Your task to perform on an android device: Open the phone app and click the voicemail tab. Image 0: 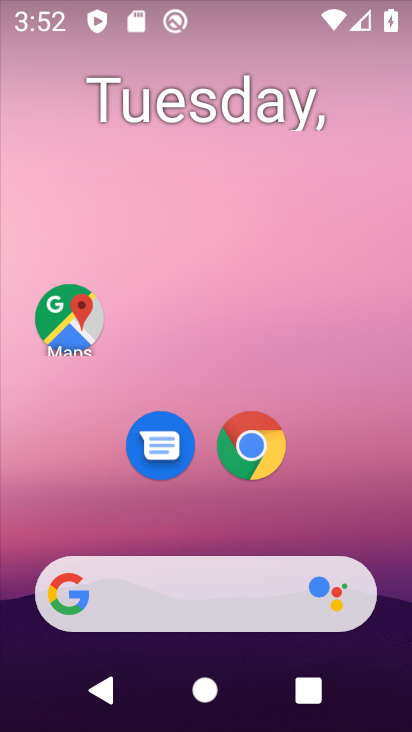
Step 0: drag from (222, 600) to (353, 57)
Your task to perform on an android device: Open the phone app and click the voicemail tab. Image 1: 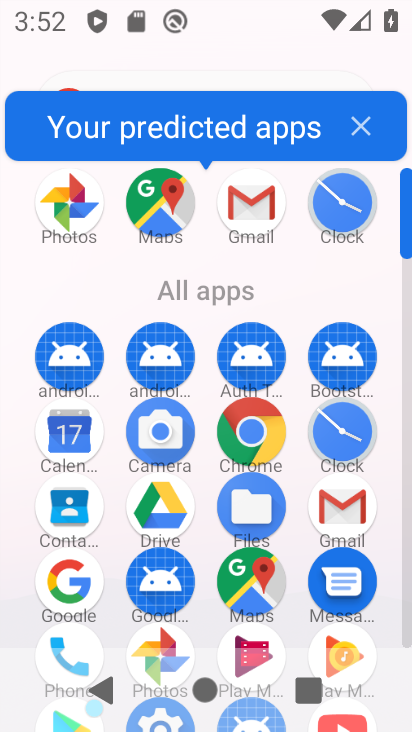
Step 1: click (65, 639)
Your task to perform on an android device: Open the phone app and click the voicemail tab. Image 2: 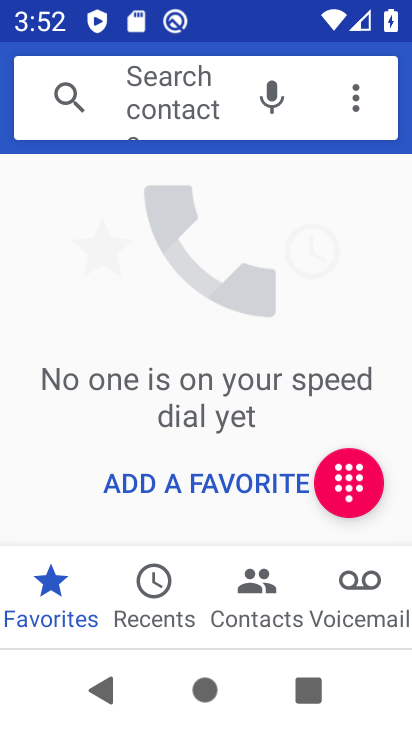
Step 2: click (366, 611)
Your task to perform on an android device: Open the phone app and click the voicemail tab. Image 3: 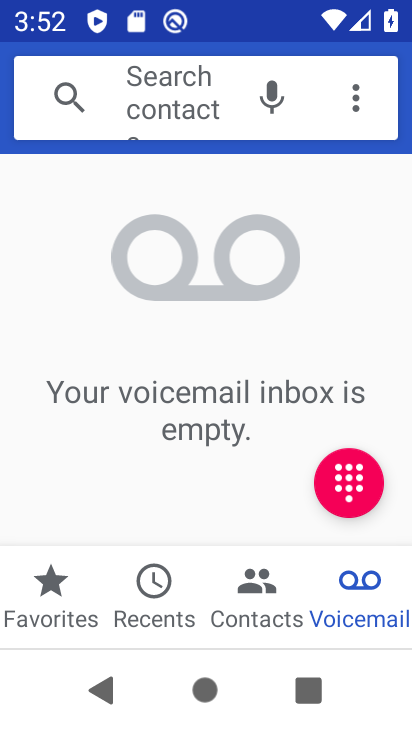
Step 3: task complete